Your task to perform on an android device: Open calendar and show me the fourth week of next month Image 0: 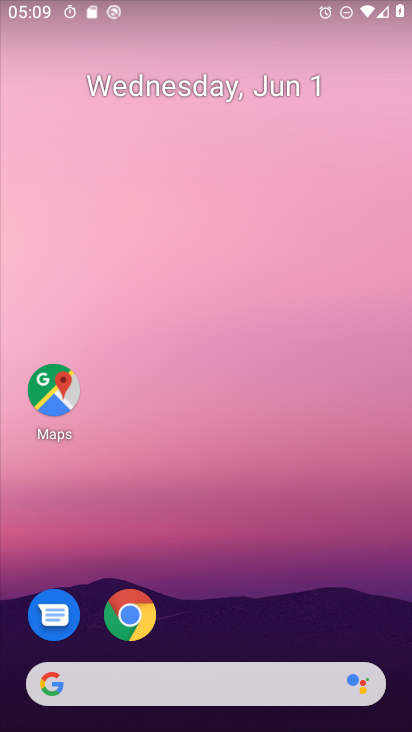
Step 0: drag from (295, 663) to (272, 82)
Your task to perform on an android device: Open calendar and show me the fourth week of next month Image 1: 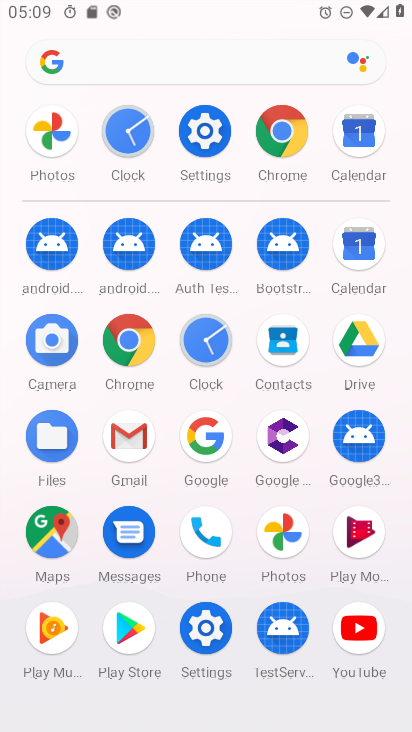
Step 1: click (370, 248)
Your task to perform on an android device: Open calendar and show me the fourth week of next month Image 2: 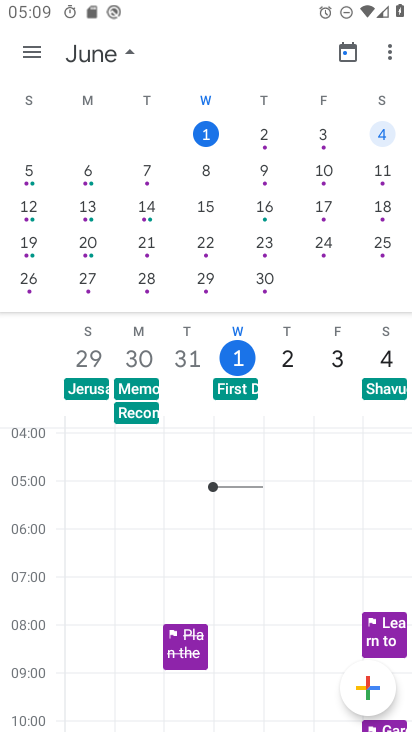
Step 2: click (215, 246)
Your task to perform on an android device: Open calendar and show me the fourth week of next month Image 3: 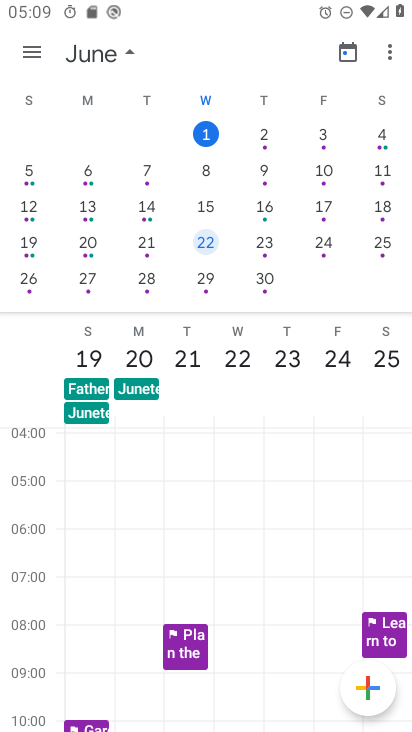
Step 3: task complete